Your task to perform on an android device: Open Reddit.com Image 0: 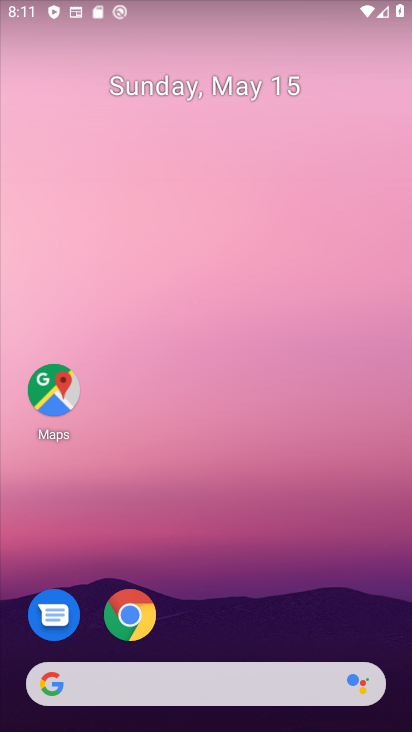
Step 0: drag from (225, 553) to (225, 123)
Your task to perform on an android device: Open Reddit.com Image 1: 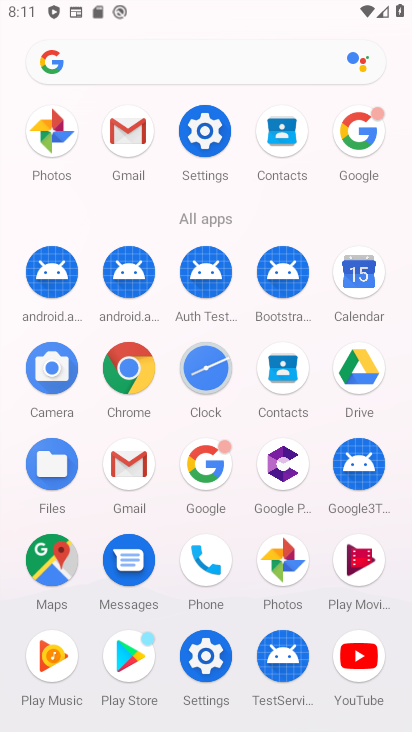
Step 1: click (203, 475)
Your task to perform on an android device: Open Reddit.com Image 2: 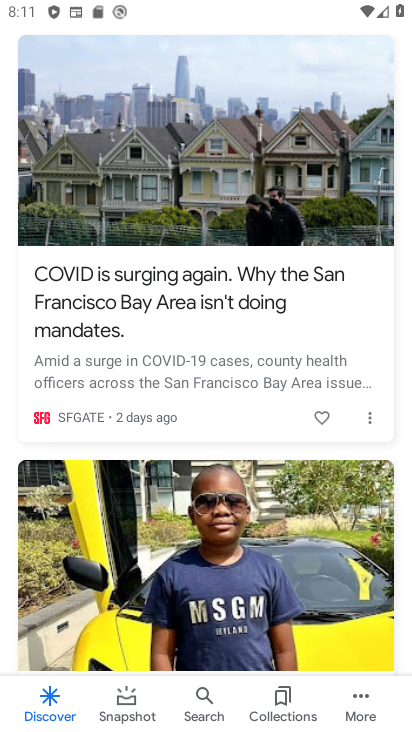
Step 2: drag from (150, 89) to (178, 479)
Your task to perform on an android device: Open Reddit.com Image 3: 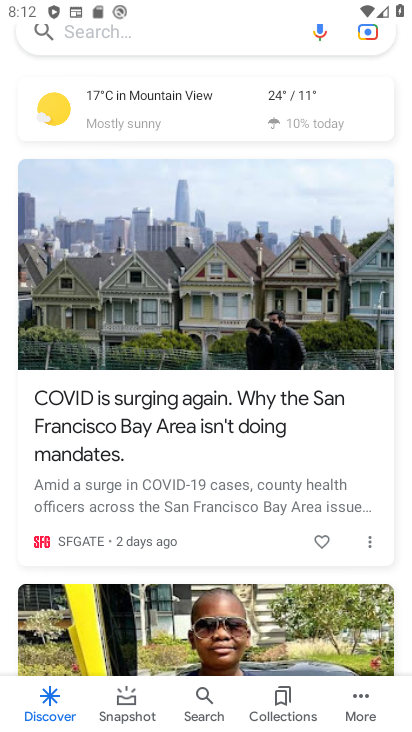
Step 3: click (132, 29)
Your task to perform on an android device: Open Reddit.com Image 4: 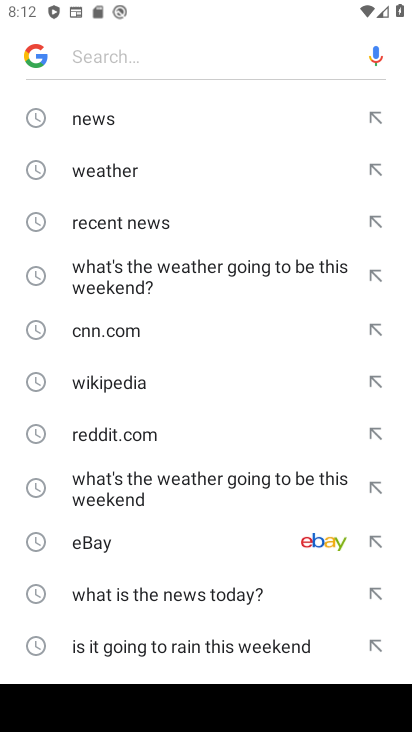
Step 4: click (113, 437)
Your task to perform on an android device: Open Reddit.com Image 5: 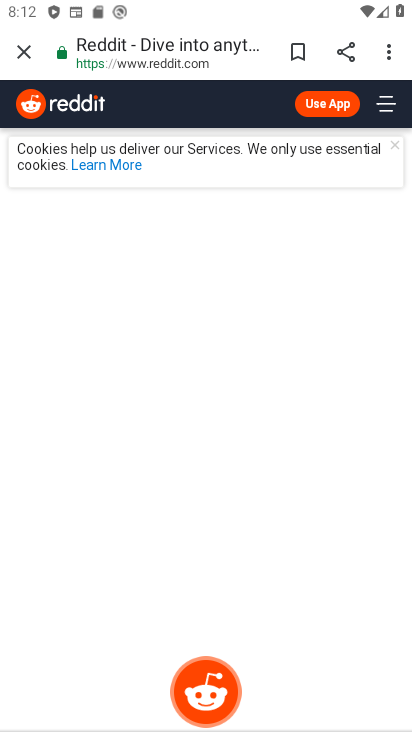
Step 5: task complete